Your task to perform on an android device: Open Chrome and go to the settings page Image 0: 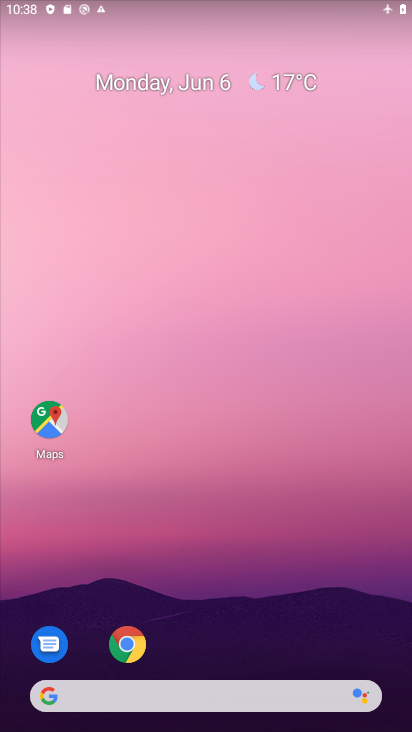
Step 0: click (118, 644)
Your task to perform on an android device: Open Chrome and go to the settings page Image 1: 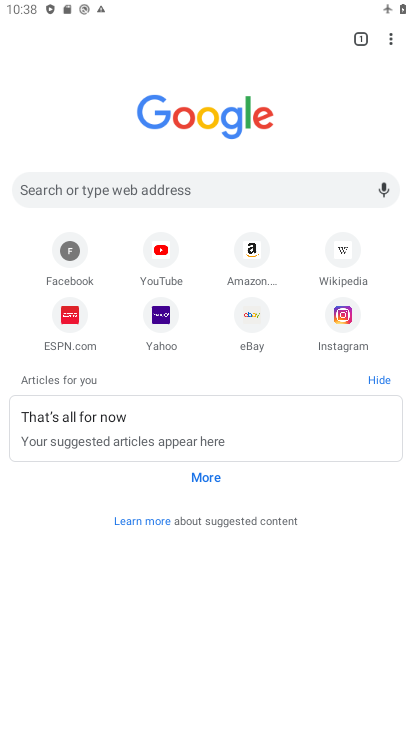
Step 1: task complete